Your task to perform on an android device: turn off sleep mode Image 0: 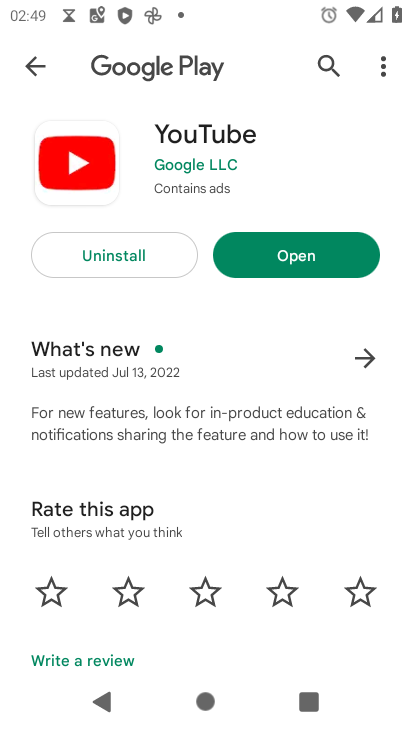
Step 0: press home button
Your task to perform on an android device: turn off sleep mode Image 1: 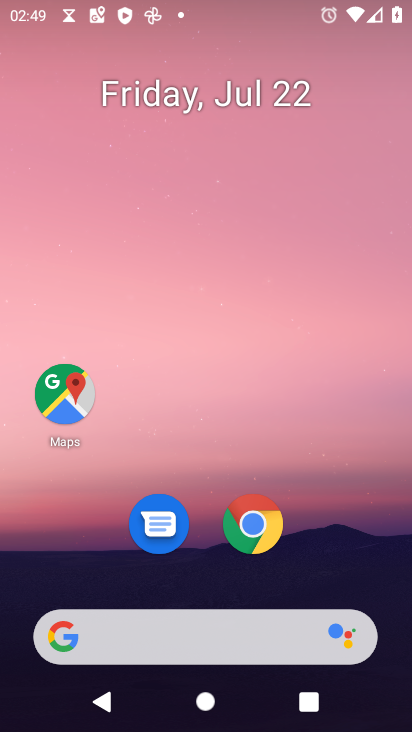
Step 1: drag from (230, 634) to (372, 27)
Your task to perform on an android device: turn off sleep mode Image 2: 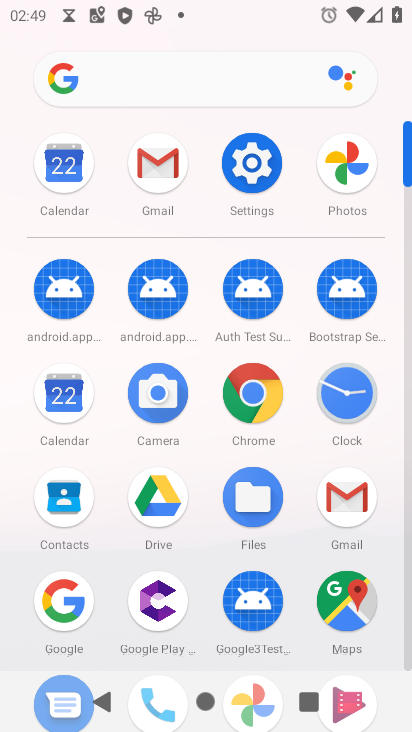
Step 2: click (259, 164)
Your task to perform on an android device: turn off sleep mode Image 3: 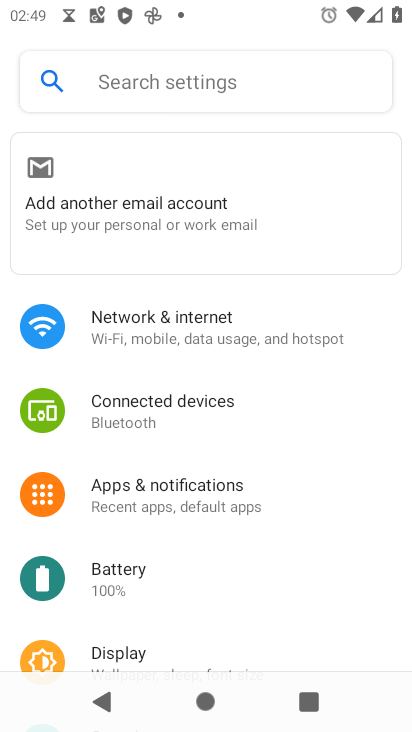
Step 3: drag from (187, 578) to (311, 202)
Your task to perform on an android device: turn off sleep mode Image 4: 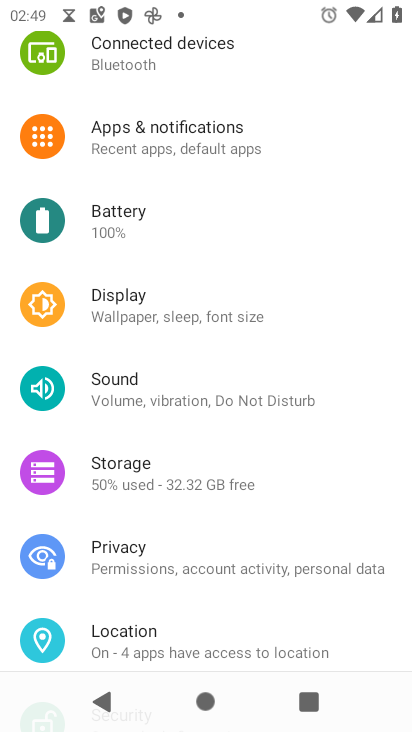
Step 4: click (190, 303)
Your task to perform on an android device: turn off sleep mode Image 5: 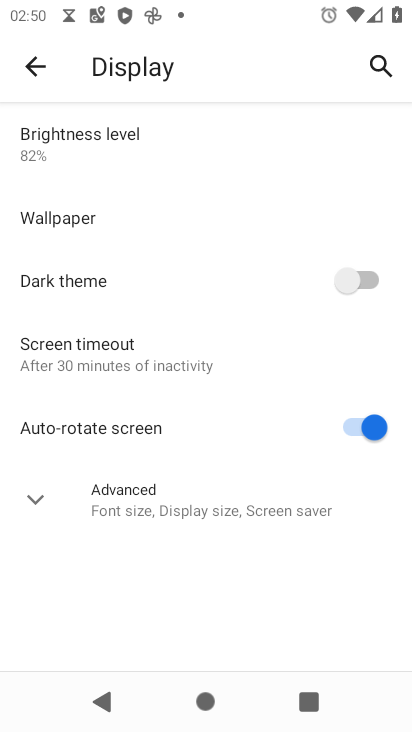
Step 5: task complete